Your task to perform on an android device: Open Google Image 0: 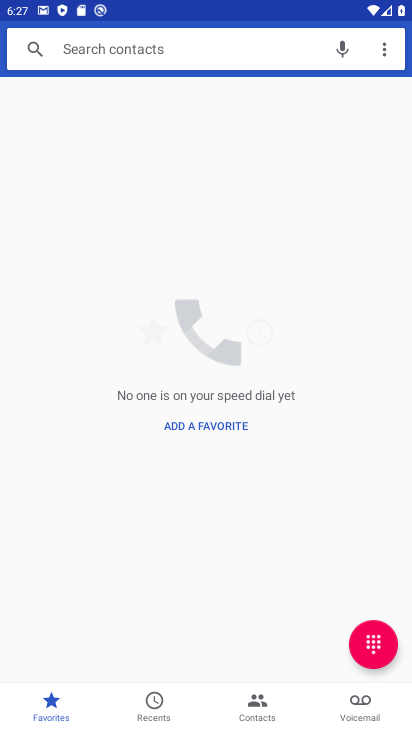
Step 0: press home button
Your task to perform on an android device: Open Google Image 1: 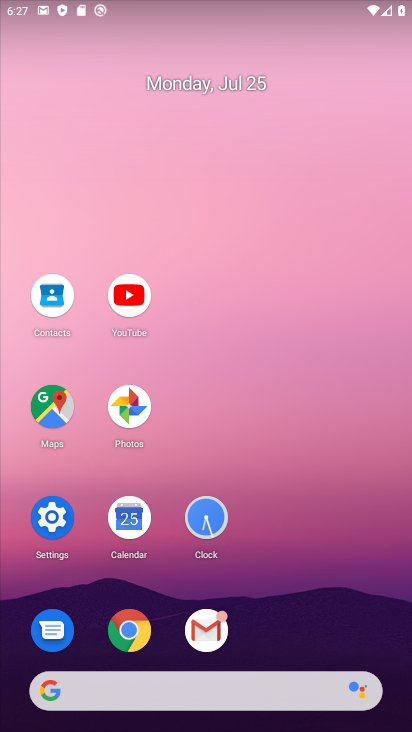
Step 1: click (82, 689)
Your task to perform on an android device: Open Google Image 2: 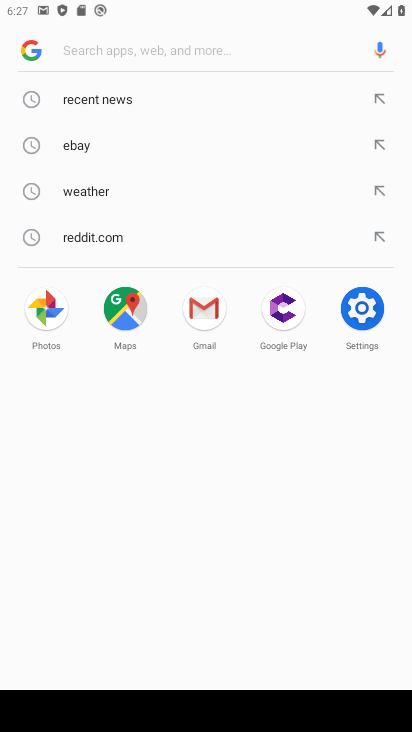
Step 2: task complete